Your task to perform on an android device: change the clock style Image 0: 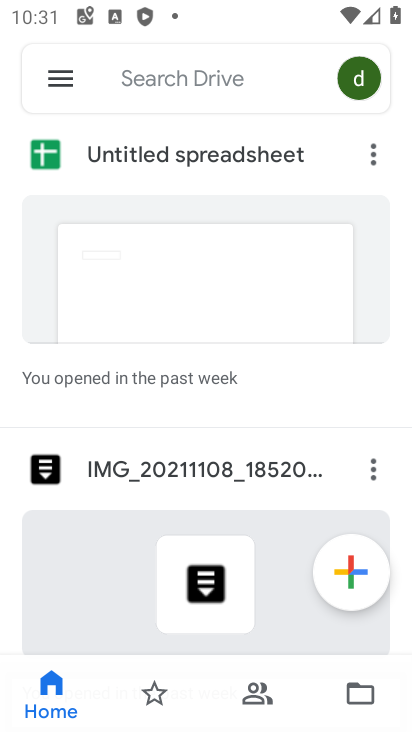
Step 0: press home button
Your task to perform on an android device: change the clock style Image 1: 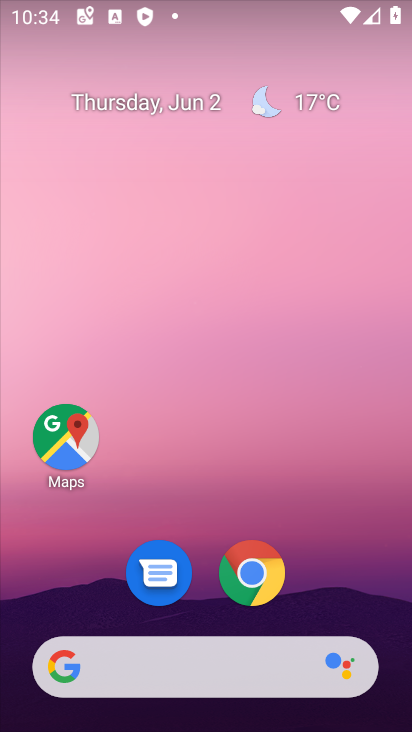
Step 1: drag from (342, 573) to (2, 141)
Your task to perform on an android device: change the clock style Image 2: 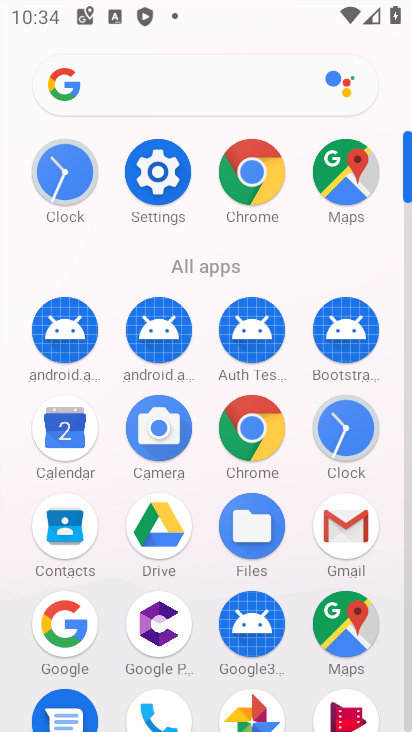
Step 2: click (56, 172)
Your task to perform on an android device: change the clock style Image 3: 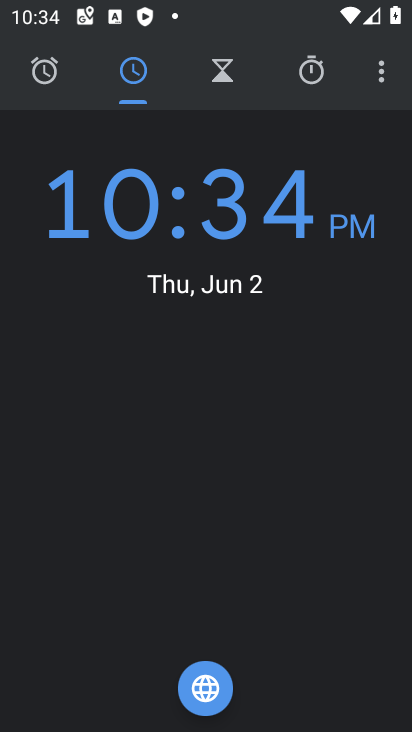
Step 3: click (376, 70)
Your task to perform on an android device: change the clock style Image 4: 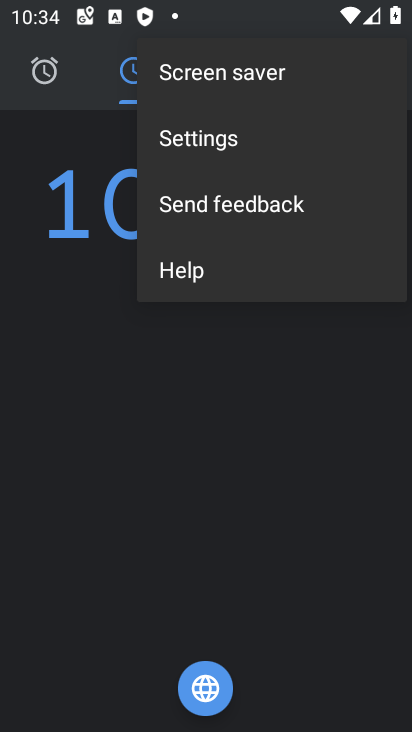
Step 4: click (217, 152)
Your task to perform on an android device: change the clock style Image 5: 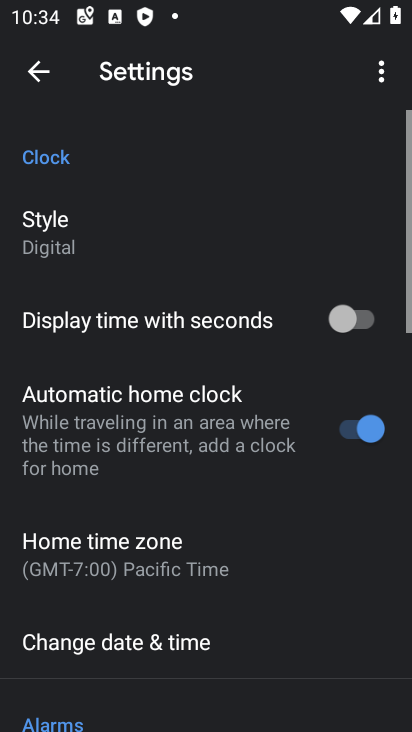
Step 5: click (87, 233)
Your task to perform on an android device: change the clock style Image 6: 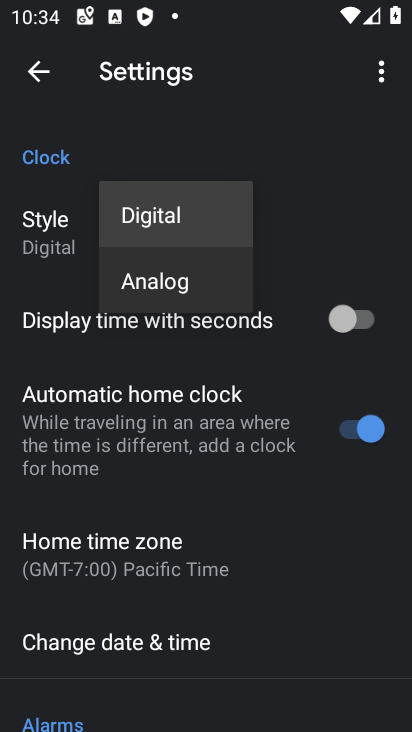
Step 6: click (180, 296)
Your task to perform on an android device: change the clock style Image 7: 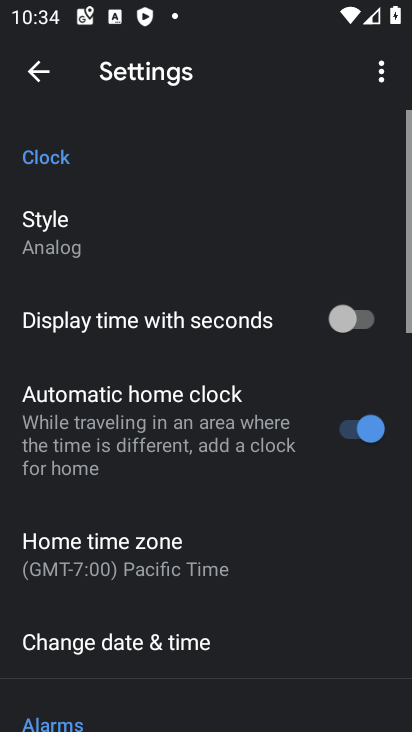
Step 7: task complete